Your task to perform on an android device: stop showing notifications on the lock screen Image 0: 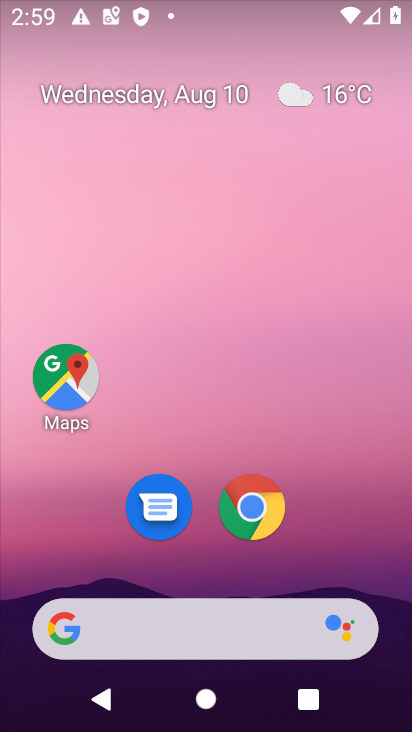
Step 0: drag from (317, 496) to (307, 52)
Your task to perform on an android device: stop showing notifications on the lock screen Image 1: 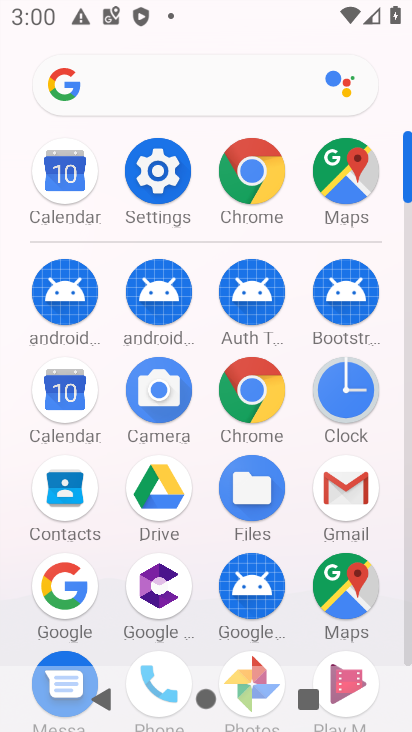
Step 1: click (155, 164)
Your task to perform on an android device: stop showing notifications on the lock screen Image 2: 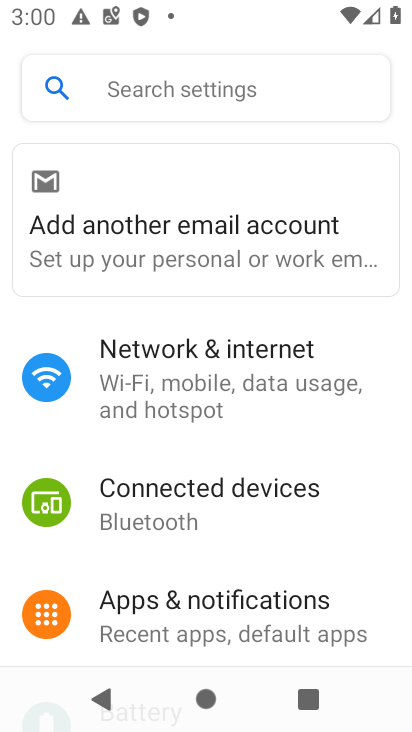
Step 2: click (256, 596)
Your task to perform on an android device: stop showing notifications on the lock screen Image 3: 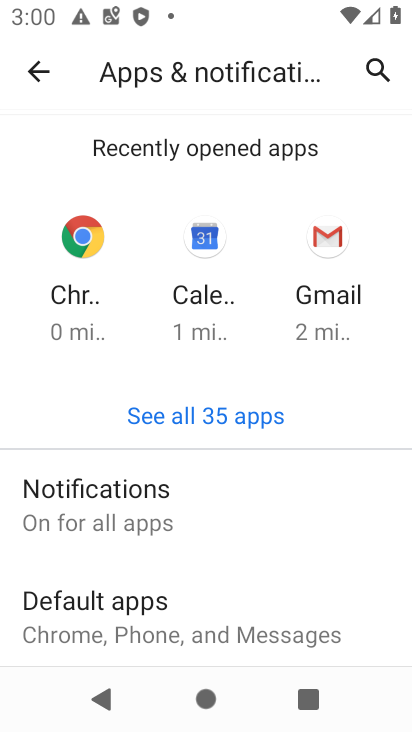
Step 3: click (118, 504)
Your task to perform on an android device: stop showing notifications on the lock screen Image 4: 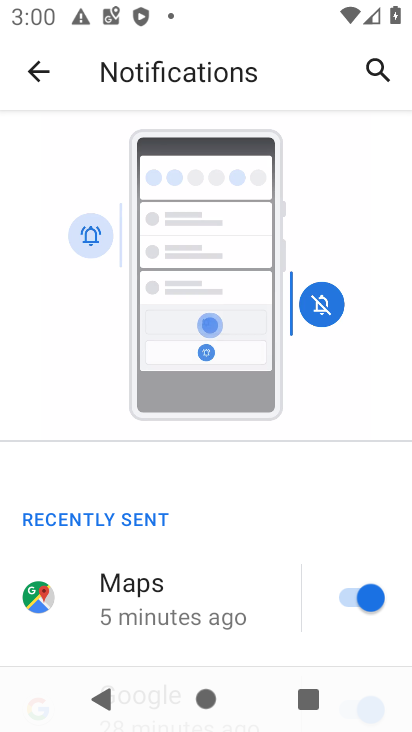
Step 4: drag from (259, 533) to (265, 67)
Your task to perform on an android device: stop showing notifications on the lock screen Image 5: 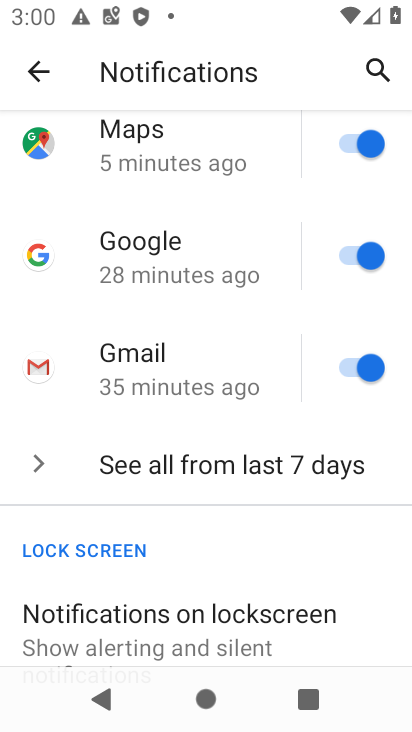
Step 5: click (172, 612)
Your task to perform on an android device: stop showing notifications on the lock screen Image 6: 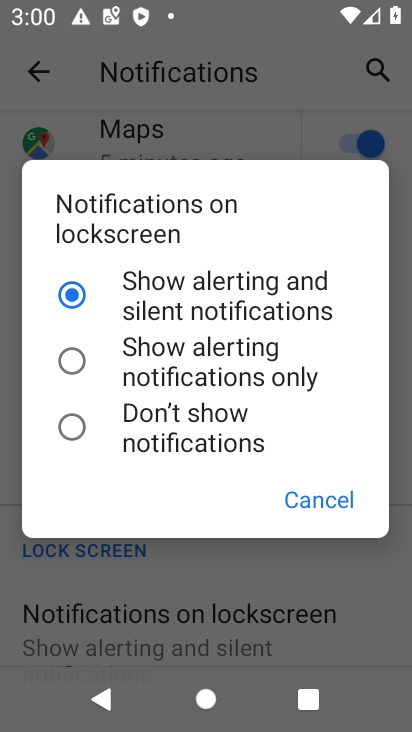
Step 6: click (188, 439)
Your task to perform on an android device: stop showing notifications on the lock screen Image 7: 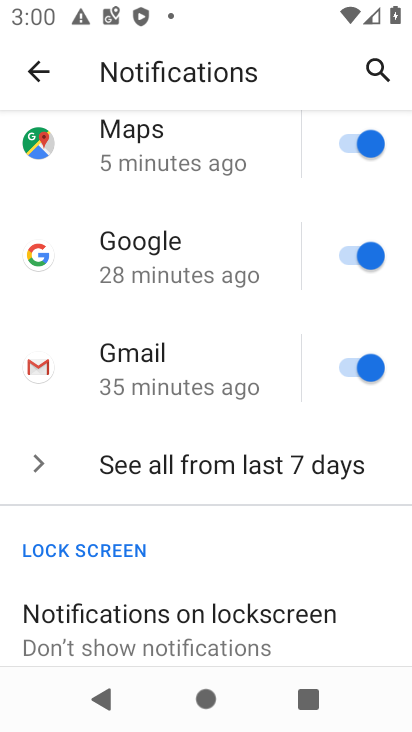
Step 7: task complete